Your task to perform on an android device: Open calendar and show me the first week of next month Image 0: 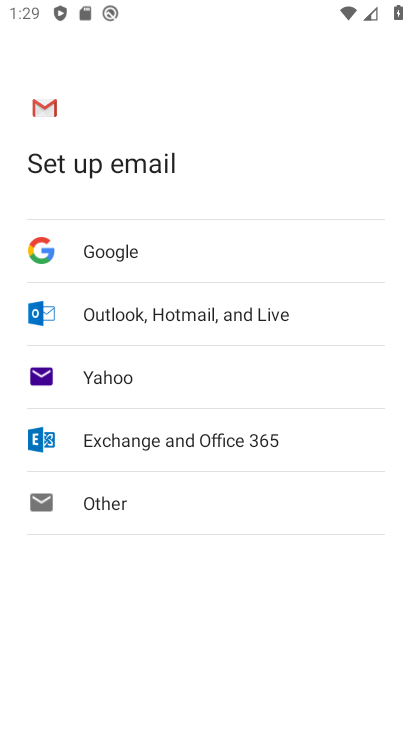
Step 0: press home button
Your task to perform on an android device: Open calendar and show me the first week of next month Image 1: 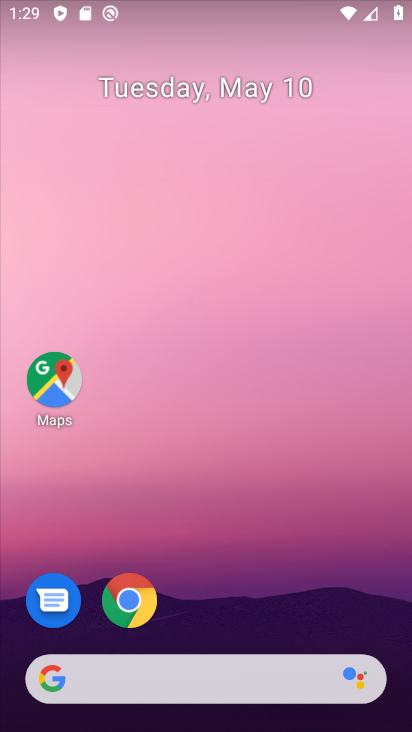
Step 1: drag from (180, 679) to (142, 106)
Your task to perform on an android device: Open calendar and show me the first week of next month Image 2: 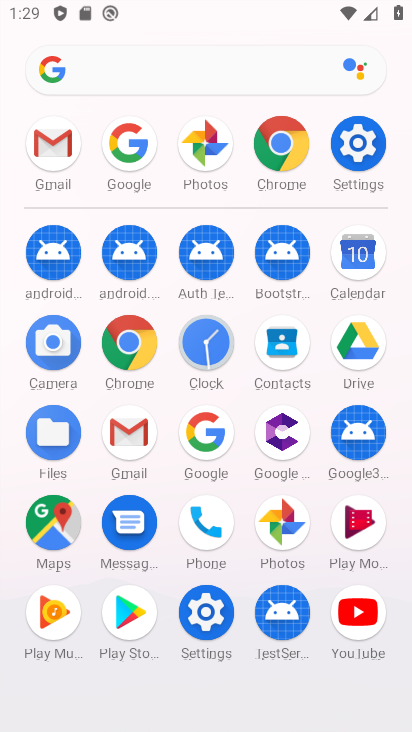
Step 2: click (374, 265)
Your task to perform on an android device: Open calendar and show me the first week of next month Image 3: 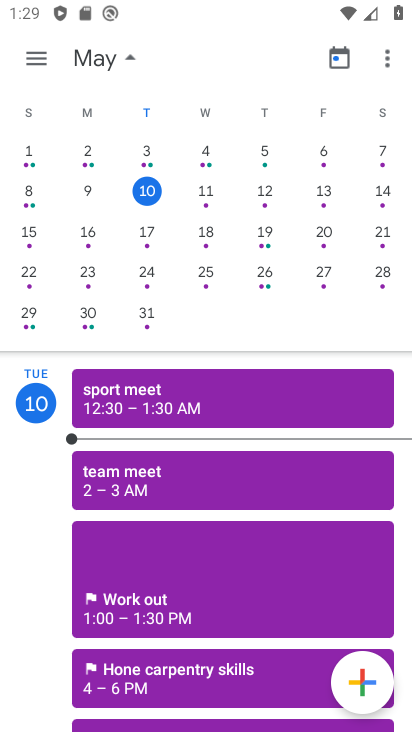
Step 3: drag from (349, 259) to (37, 223)
Your task to perform on an android device: Open calendar and show me the first week of next month Image 4: 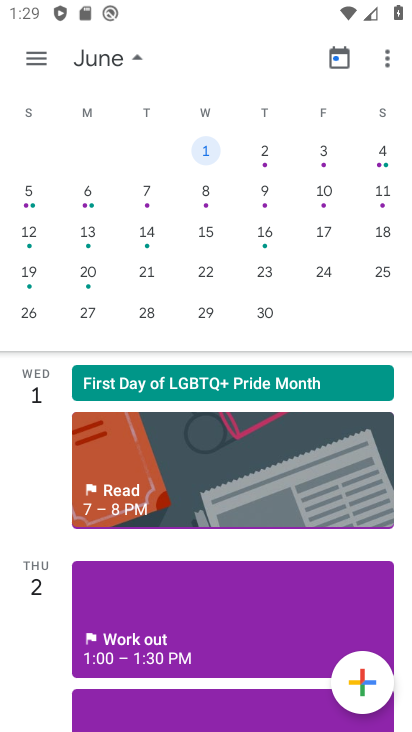
Step 4: click (36, 207)
Your task to perform on an android device: Open calendar and show me the first week of next month Image 5: 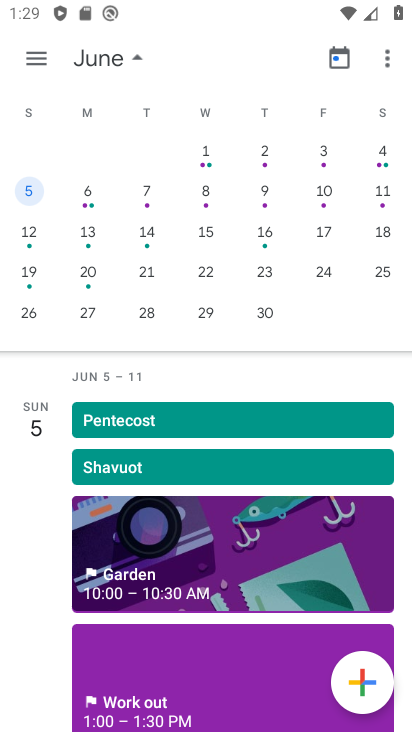
Step 5: task complete